Your task to perform on an android device: toggle airplane mode Image 0: 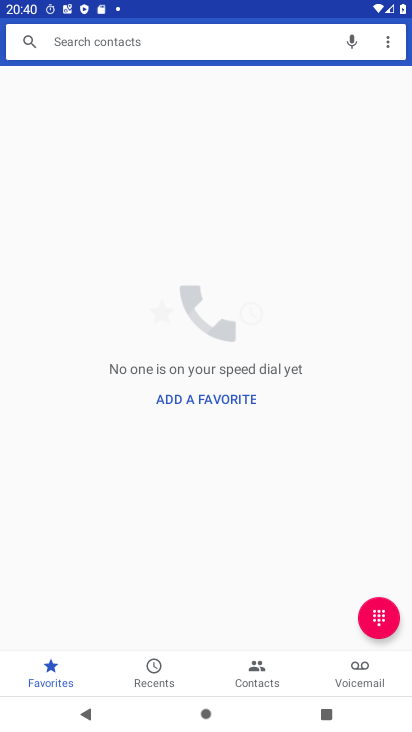
Step 0: press home button
Your task to perform on an android device: toggle airplane mode Image 1: 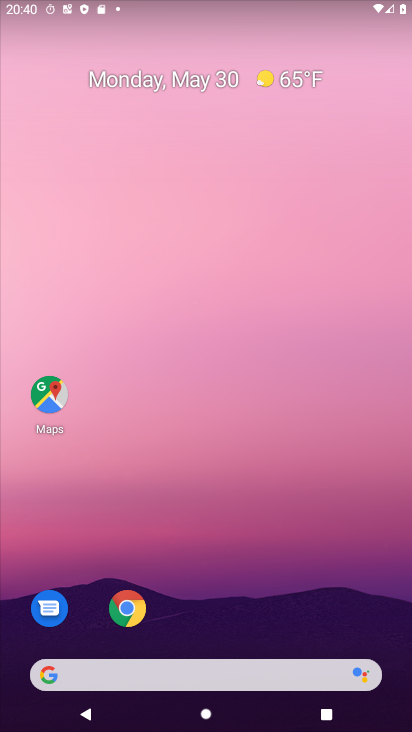
Step 1: drag from (243, 622) to (301, 82)
Your task to perform on an android device: toggle airplane mode Image 2: 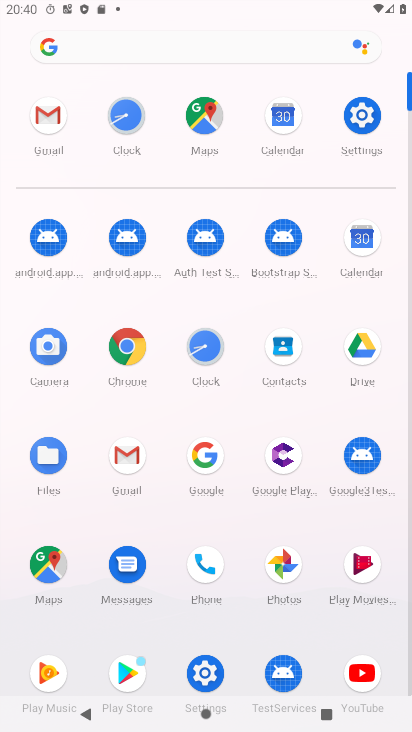
Step 2: click (349, 96)
Your task to perform on an android device: toggle airplane mode Image 3: 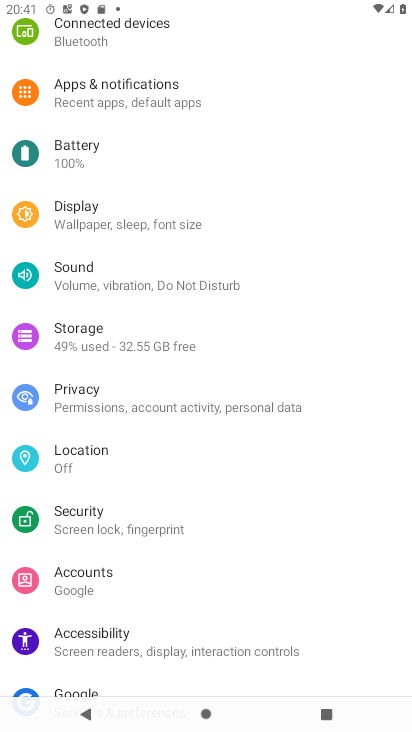
Step 3: drag from (176, 88) to (189, 382)
Your task to perform on an android device: toggle airplane mode Image 4: 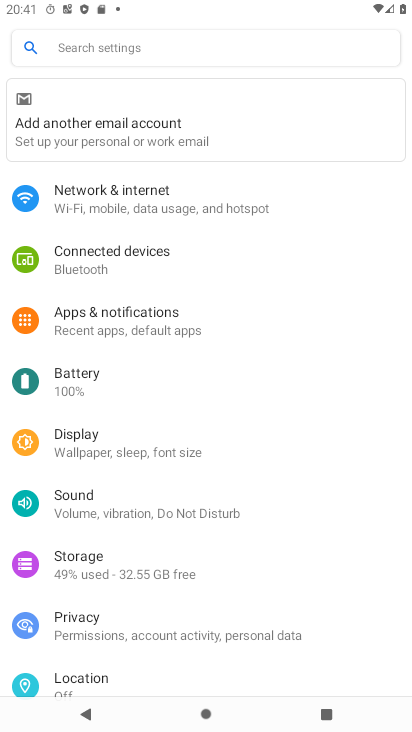
Step 4: click (143, 187)
Your task to perform on an android device: toggle airplane mode Image 5: 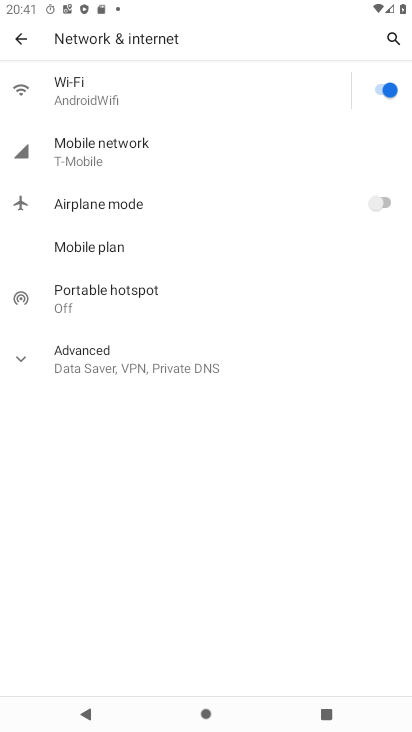
Step 5: click (388, 194)
Your task to perform on an android device: toggle airplane mode Image 6: 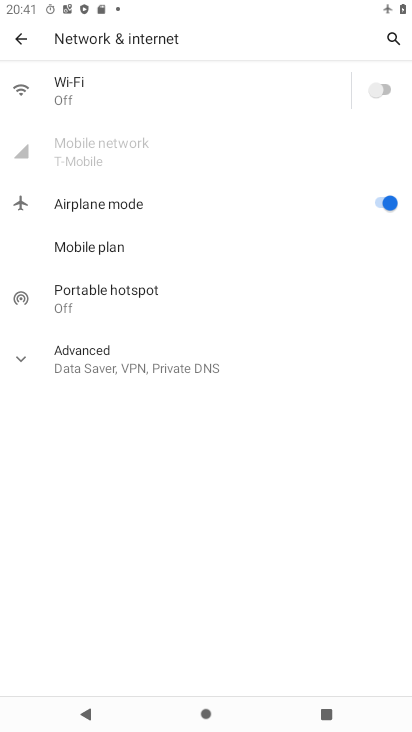
Step 6: task complete